Your task to perform on an android device: change keyboard looks Image 0: 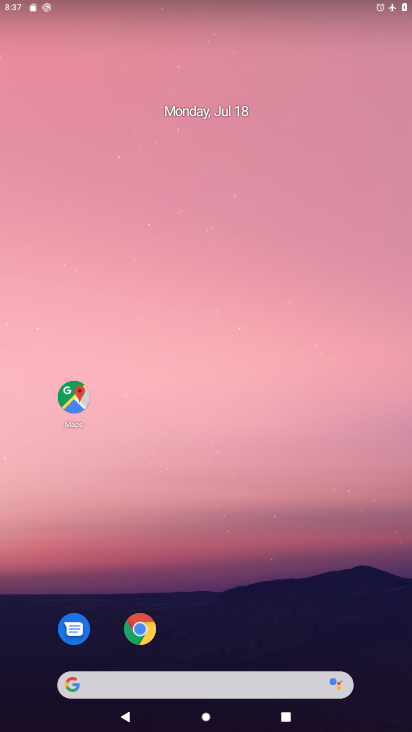
Step 0: click (367, 487)
Your task to perform on an android device: change keyboard looks Image 1: 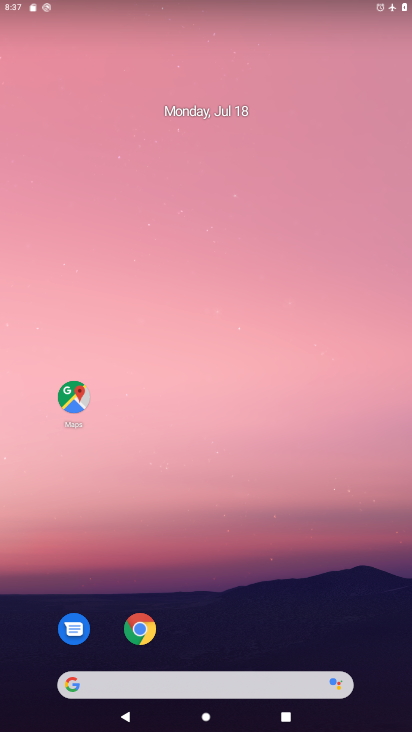
Step 1: drag from (201, 632) to (168, 4)
Your task to perform on an android device: change keyboard looks Image 2: 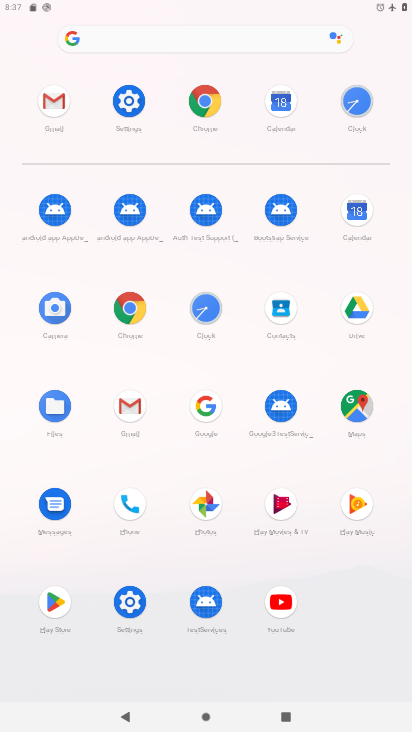
Step 2: click (121, 621)
Your task to perform on an android device: change keyboard looks Image 3: 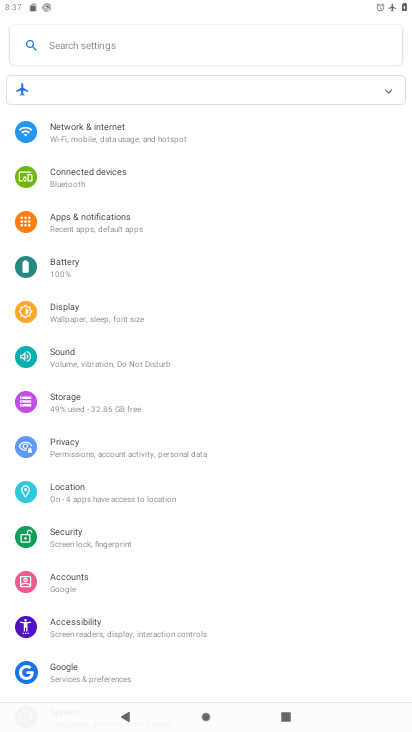
Step 3: drag from (114, 654) to (115, 409)
Your task to perform on an android device: change keyboard looks Image 4: 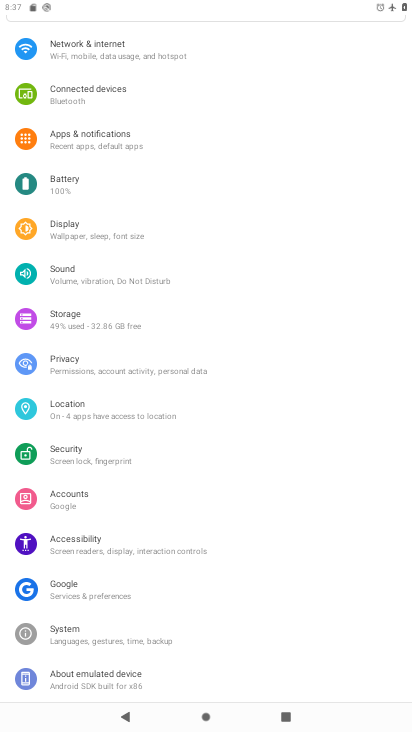
Step 4: click (96, 641)
Your task to perform on an android device: change keyboard looks Image 5: 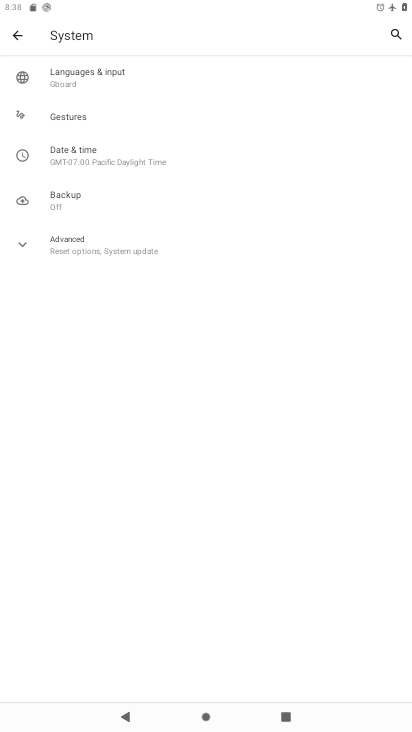
Step 5: click (111, 77)
Your task to perform on an android device: change keyboard looks Image 6: 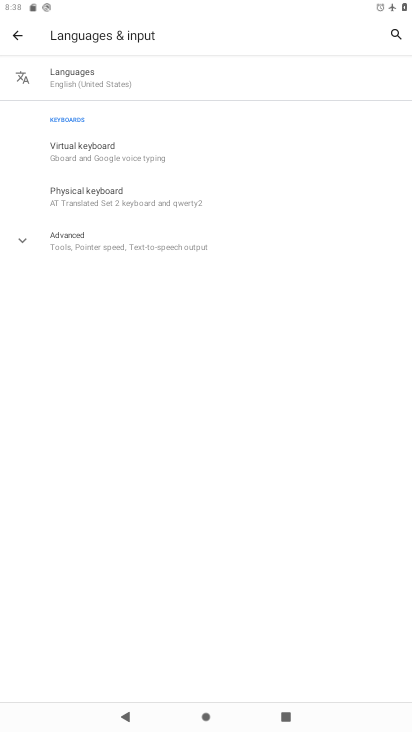
Step 6: click (110, 155)
Your task to perform on an android device: change keyboard looks Image 7: 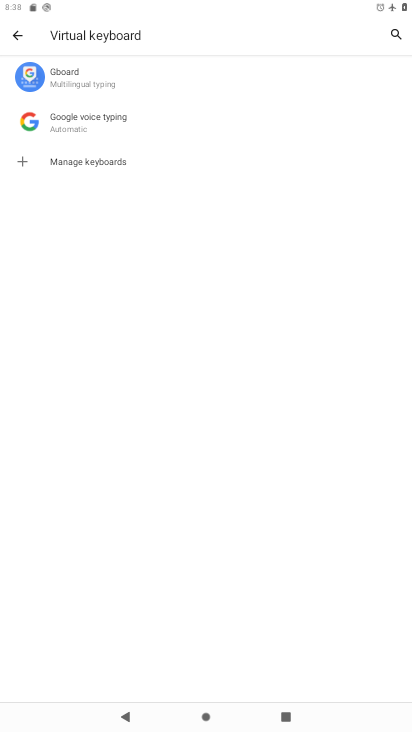
Step 7: click (102, 78)
Your task to perform on an android device: change keyboard looks Image 8: 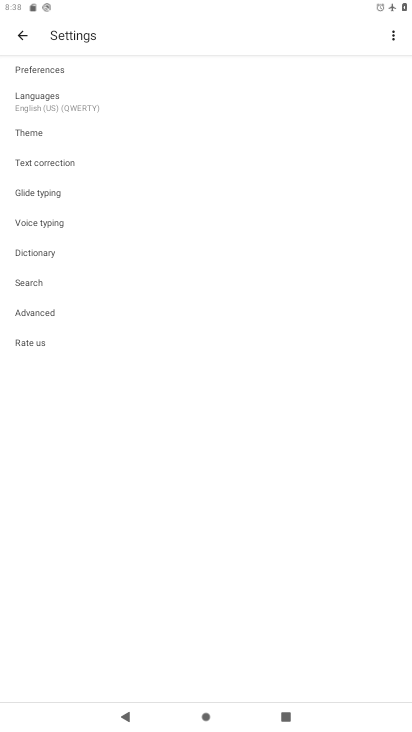
Step 8: click (43, 135)
Your task to perform on an android device: change keyboard looks Image 9: 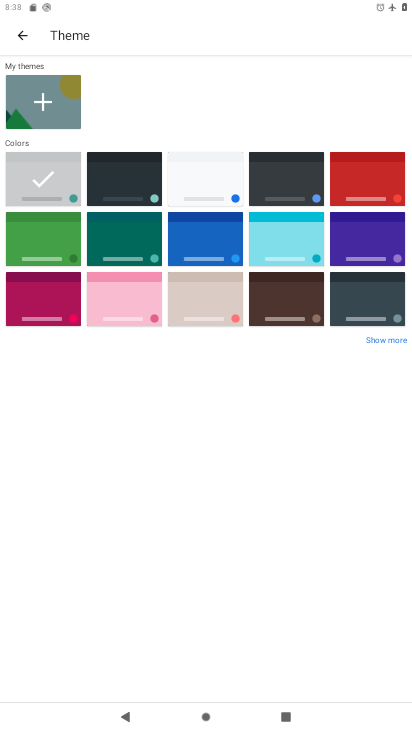
Step 9: click (129, 180)
Your task to perform on an android device: change keyboard looks Image 10: 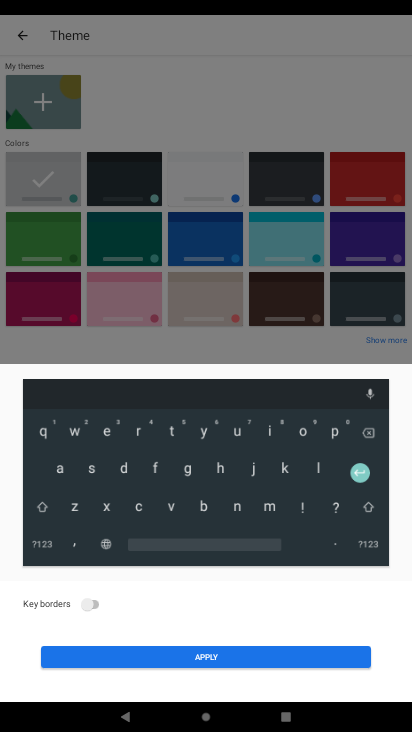
Step 10: click (240, 655)
Your task to perform on an android device: change keyboard looks Image 11: 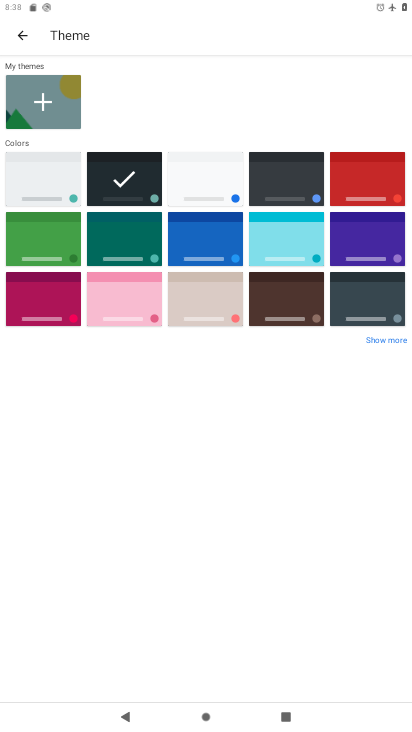
Step 11: task complete